Your task to perform on an android device: Search for seafood restaurants on Google Maps Image 0: 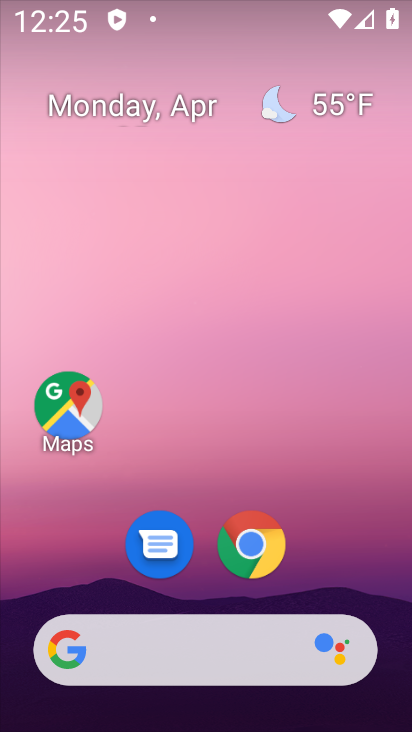
Step 0: press home button
Your task to perform on an android device: Search for seafood restaurants on Google Maps Image 1: 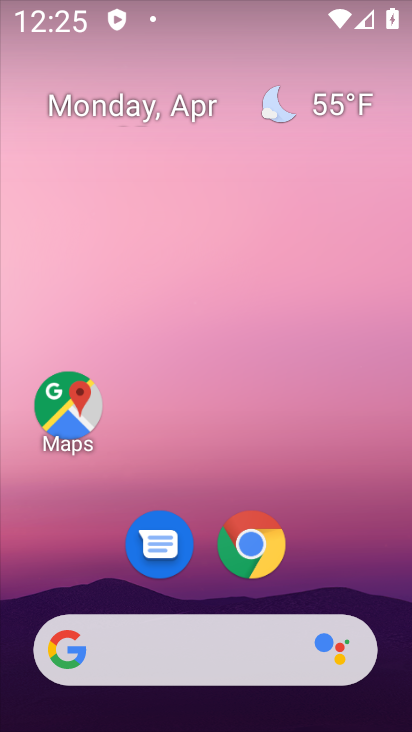
Step 1: click (78, 437)
Your task to perform on an android device: Search for seafood restaurants on Google Maps Image 2: 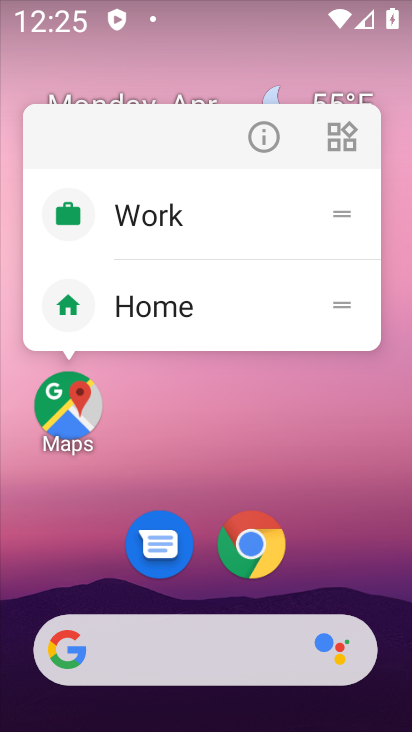
Step 2: click (75, 405)
Your task to perform on an android device: Search for seafood restaurants on Google Maps Image 3: 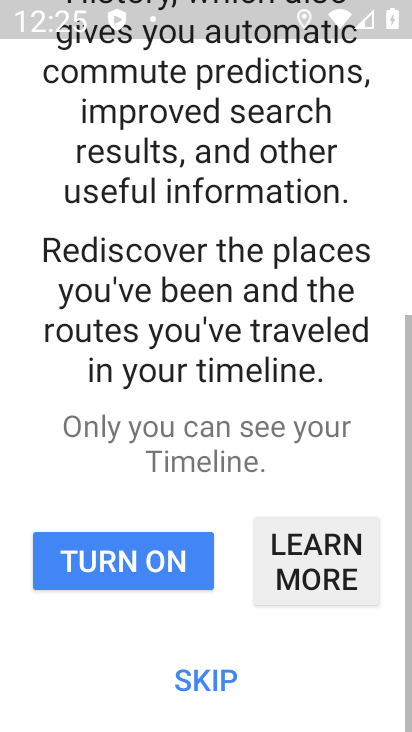
Step 3: press back button
Your task to perform on an android device: Search for seafood restaurants on Google Maps Image 4: 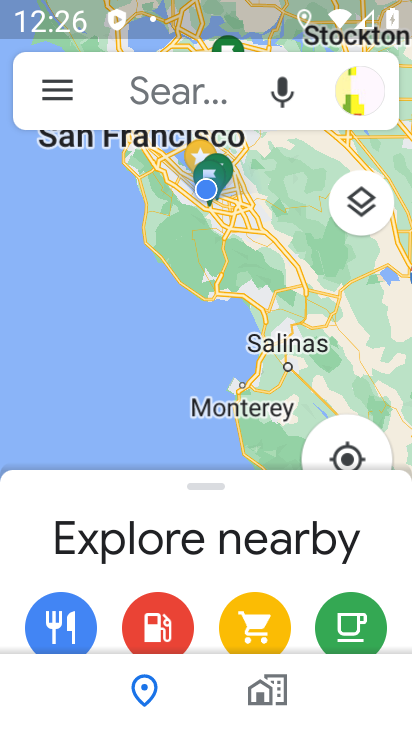
Step 4: click (165, 95)
Your task to perform on an android device: Search for seafood restaurants on Google Maps Image 5: 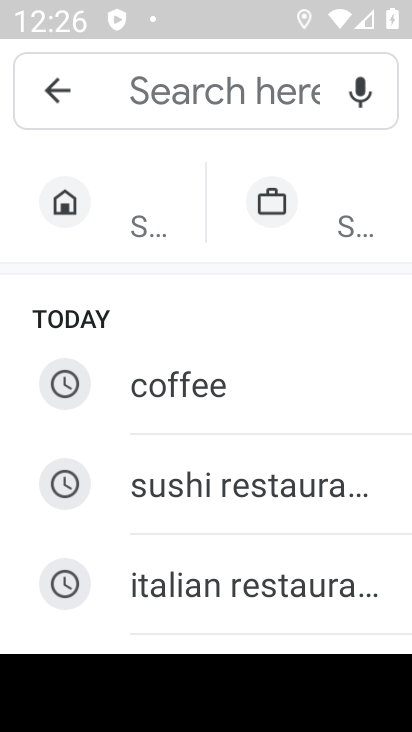
Step 5: drag from (208, 542) to (193, 189)
Your task to perform on an android device: Search for seafood restaurants on Google Maps Image 6: 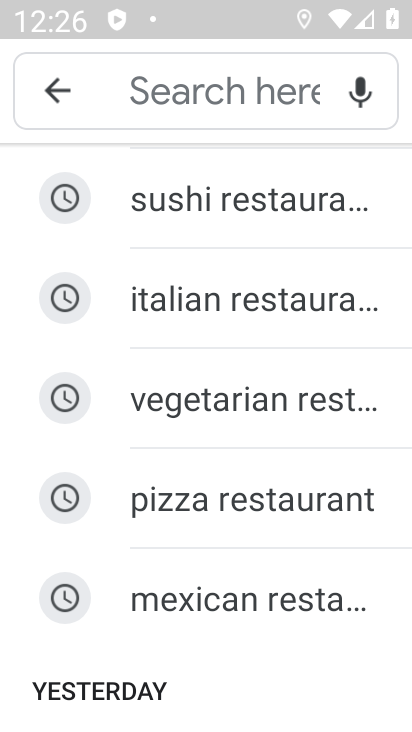
Step 6: click (175, 94)
Your task to perform on an android device: Search for seafood restaurants on Google Maps Image 7: 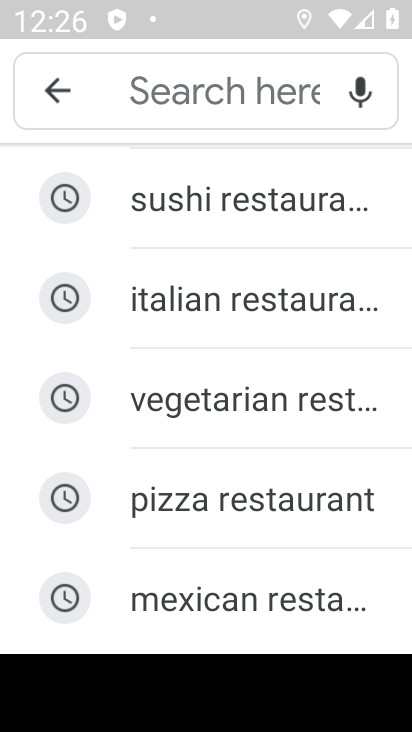
Step 7: type "seafood restaurants"
Your task to perform on an android device: Search for seafood restaurants on Google Maps Image 8: 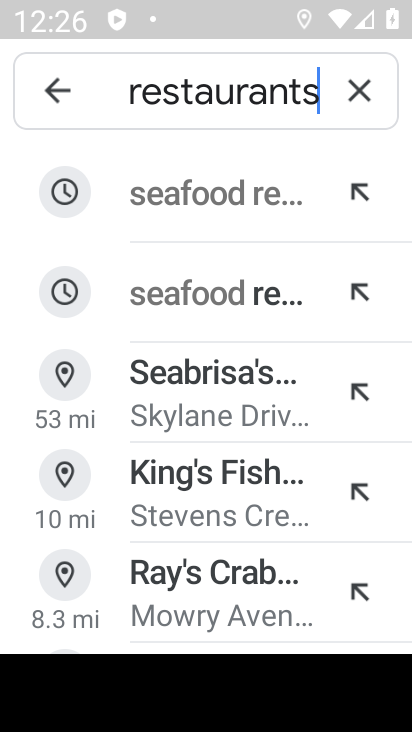
Step 8: click (201, 195)
Your task to perform on an android device: Search for seafood restaurants on Google Maps Image 9: 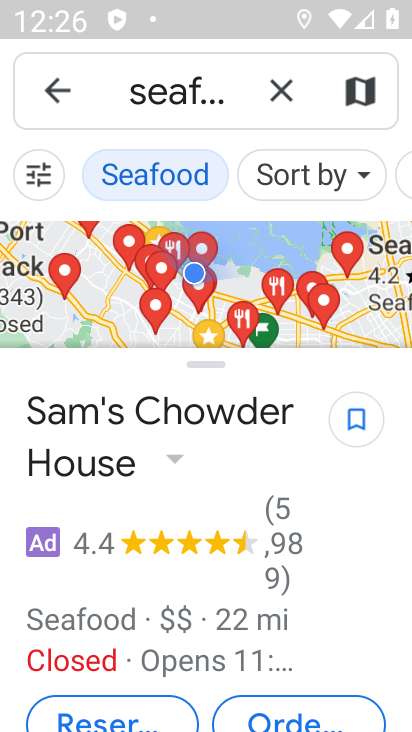
Step 9: task complete